Your task to perform on an android device: Go to privacy settings Image 0: 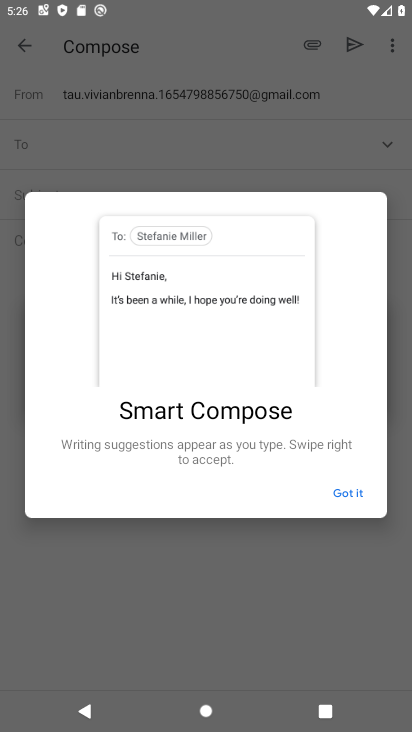
Step 0: press home button
Your task to perform on an android device: Go to privacy settings Image 1: 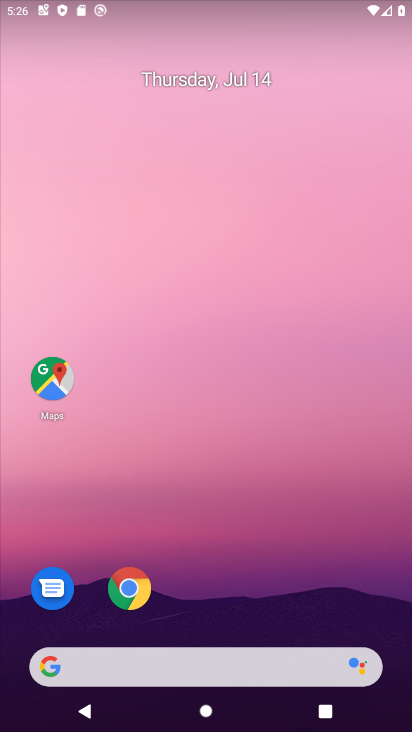
Step 1: drag from (118, 656) to (164, 238)
Your task to perform on an android device: Go to privacy settings Image 2: 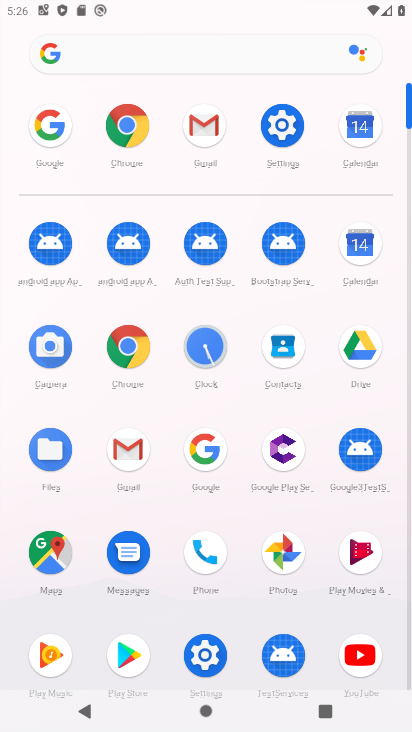
Step 2: click (284, 128)
Your task to perform on an android device: Go to privacy settings Image 3: 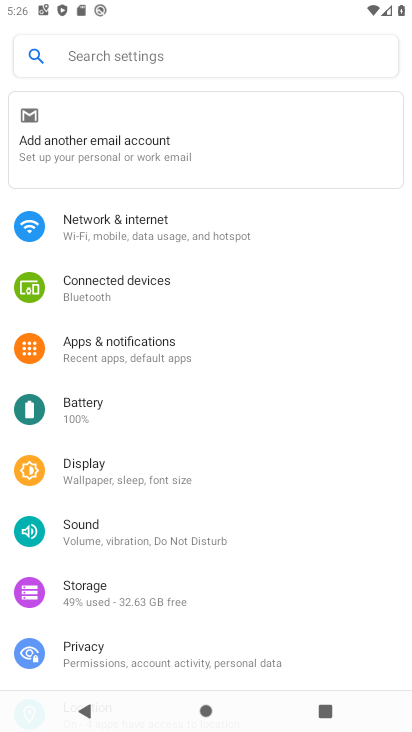
Step 3: click (107, 228)
Your task to perform on an android device: Go to privacy settings Image 4: 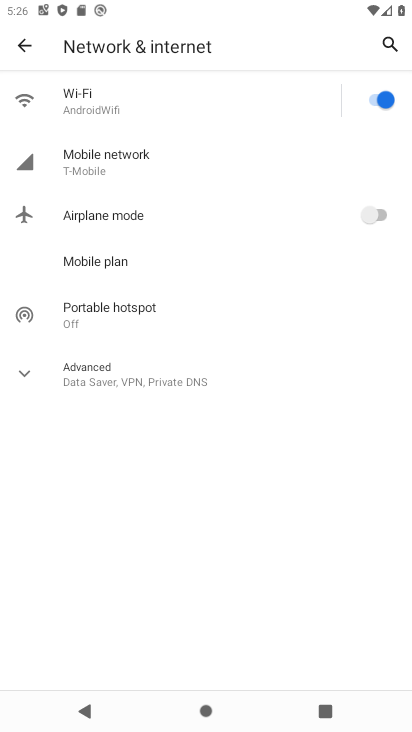
Step 4: press back button
Your task to perform on an android device: Go to privacy settings Image 5: 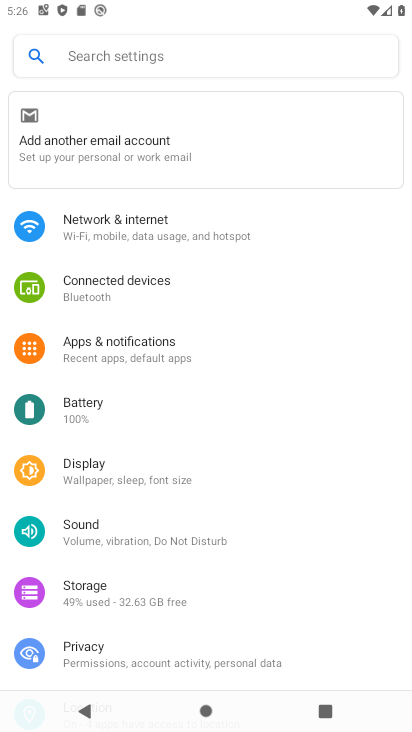
Step 5: click (87, 647)
Your task to perform on an android device: Go to privacy settings Image 6: 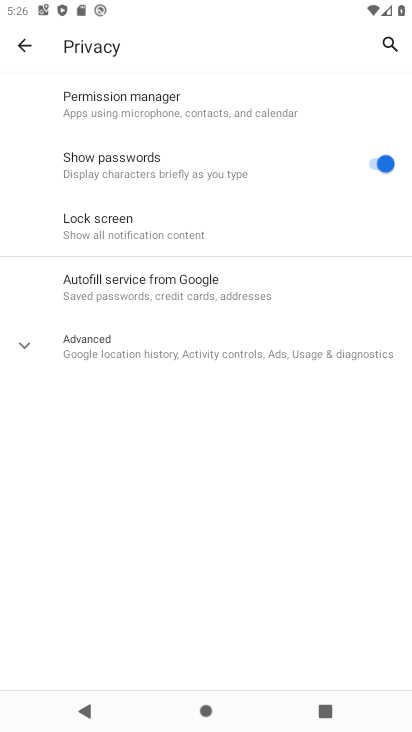
Step 6: click (77, 334)
Your task to perform on an android device: Go to privacy settings Image 7: 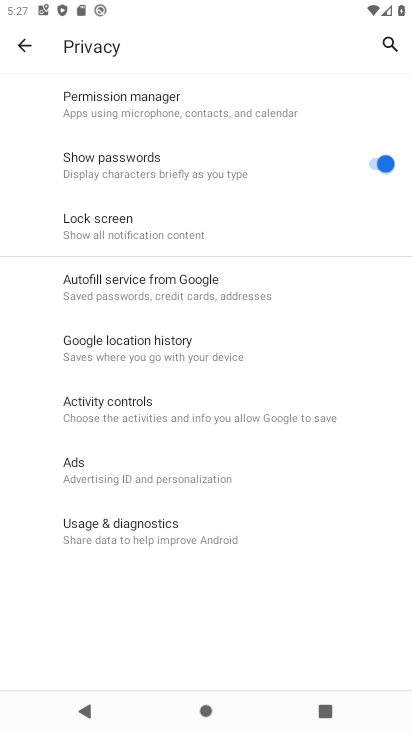
Step 7: task complete